Your task to perform on an android device: Open the phone app and click the voicemail tab. Image 0: 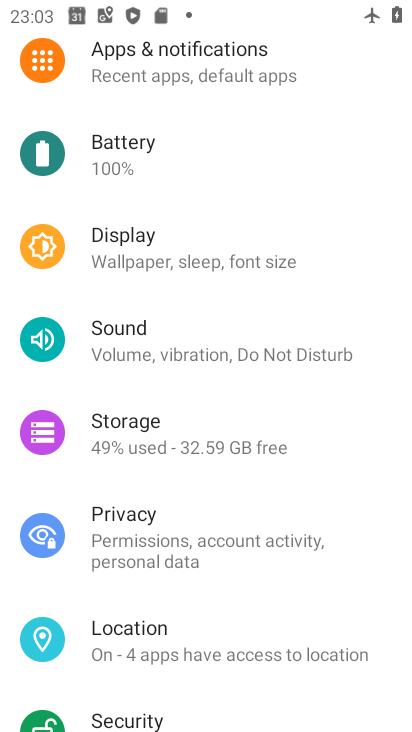
Step 0: press home button
Your task to perform on an android device: Open the phone app and click the voicemail tab. Image 1: 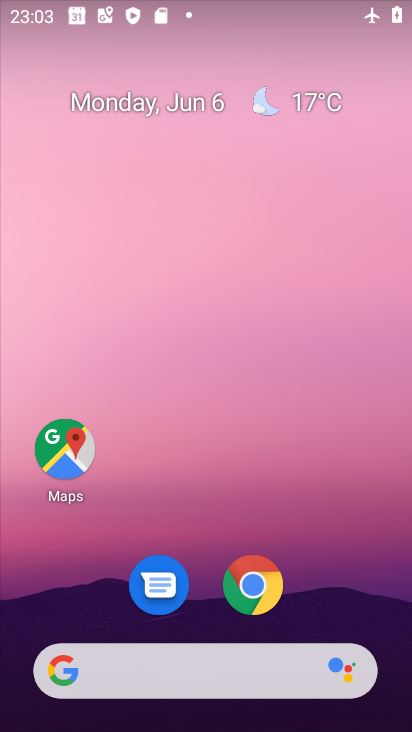
Step 1: drag from (250, 488) to (264, 13)
Your task to perform on an android device: Open the phone app and click the voicemail tab. Image 2: 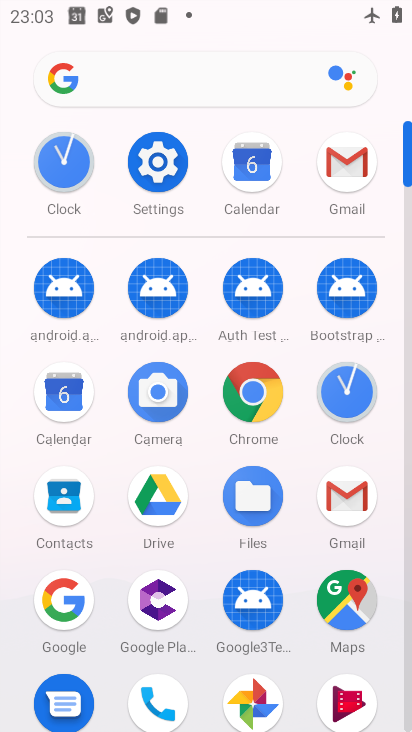
Step 2: drag from (214, 460) to (205, 288)
Your task to perform on an android device: Open the phone app and click the voicemail tab. Image 3: 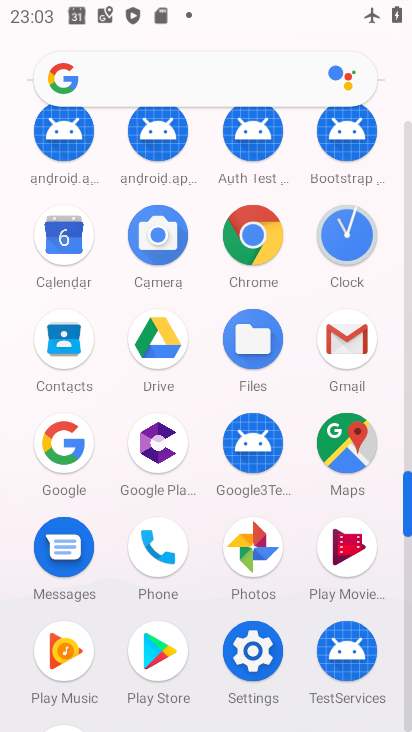
Step 3: click (169, 535)
Your task to perform on an android device: Open the phone app and click the voicemail tab. Image 4: 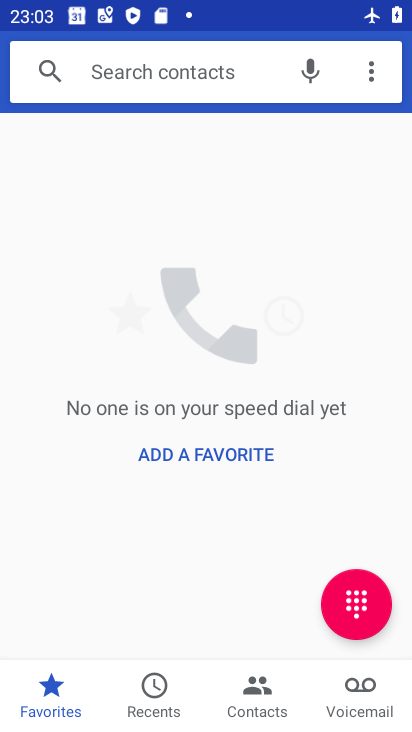
Step 4: click (382, 696)
Your task to perform on an android device: Open the phone app and click the voicemail tab. Image 5: 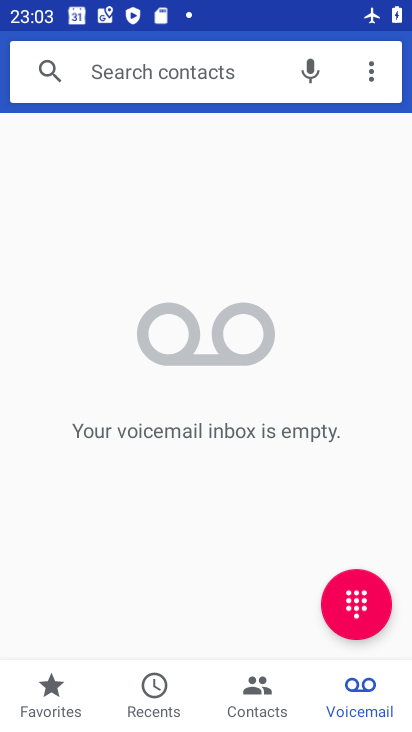
Step 5: task complete